Your task to perform on an android device: Open network settings Image 0: 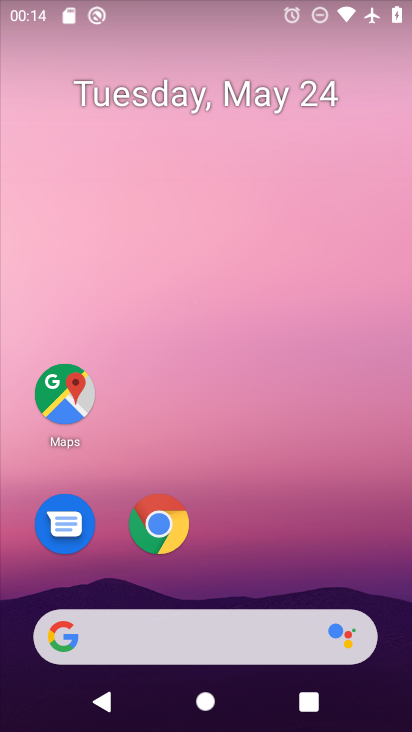
Step 0: drag from (217, 584) to (213, 169)
Your task to perform on an android device: Open network settings Image 1: 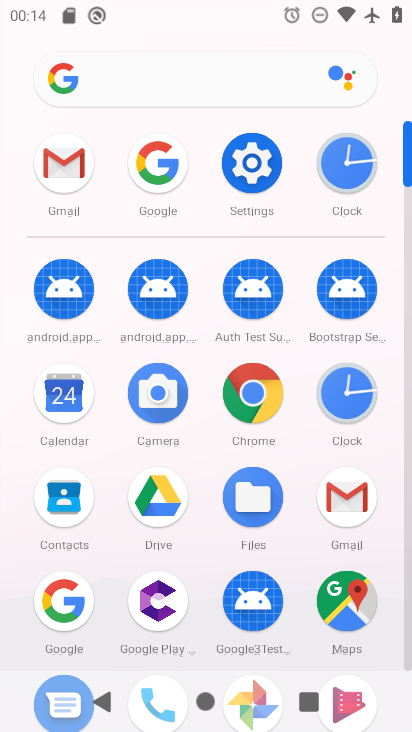
Step 1: click (255, 167)
Your task to perform on an android device: Open network settings Image 2: 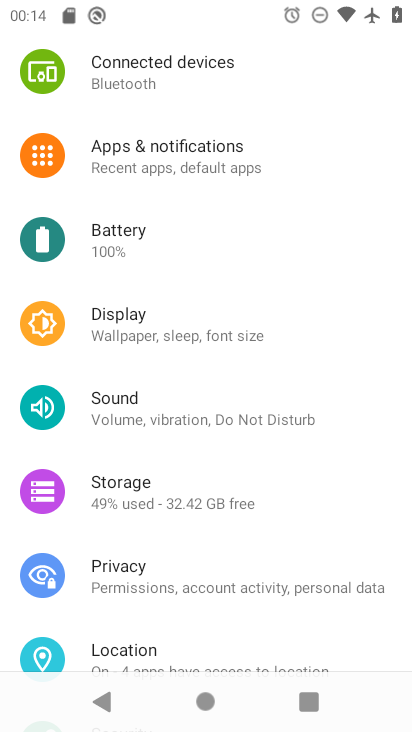
Step 2: drag from (206, 112) to (222, 558)
Your task to perform on an android device: Open network settings Image 3: 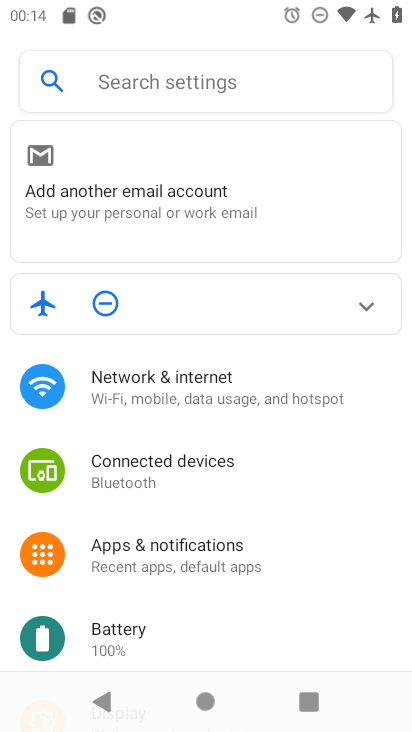
Step 3: click (198, 379)
Your task to perform on an android device: Open network settings Image 4: 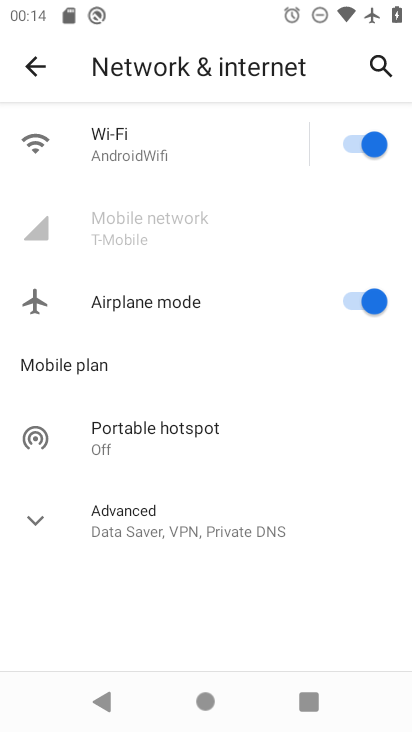
Step 4: click (163, 223)
Your task to perform on an android device: Open network settings Image 5: 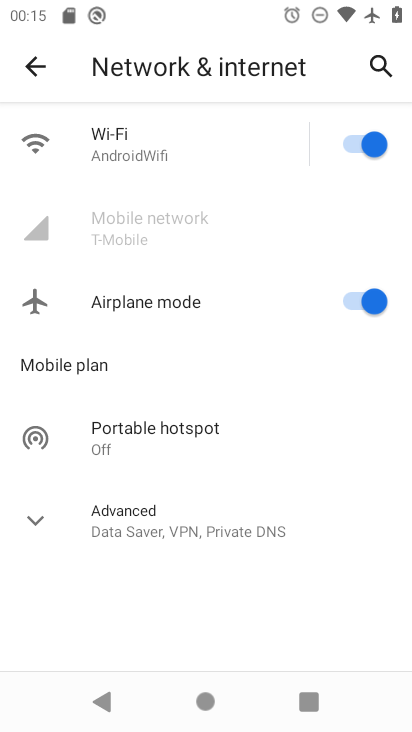
Step 5: click (185, 248)
Your task to perform on an android device: Open network settings Image 6: 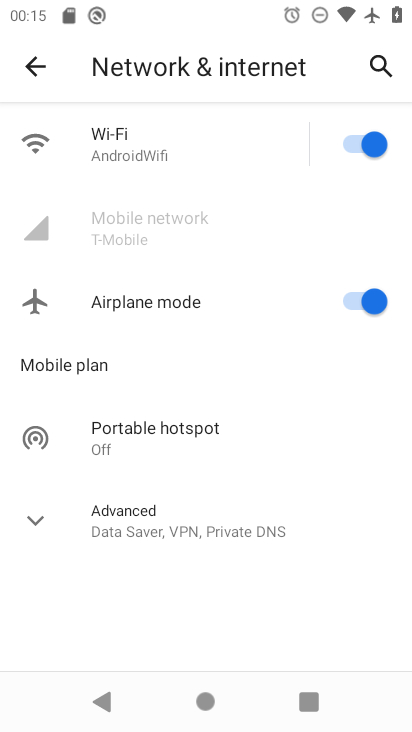
Step 6: task complete